Your task to perform on an android device: Show me the alarms in the clock app Image 0: 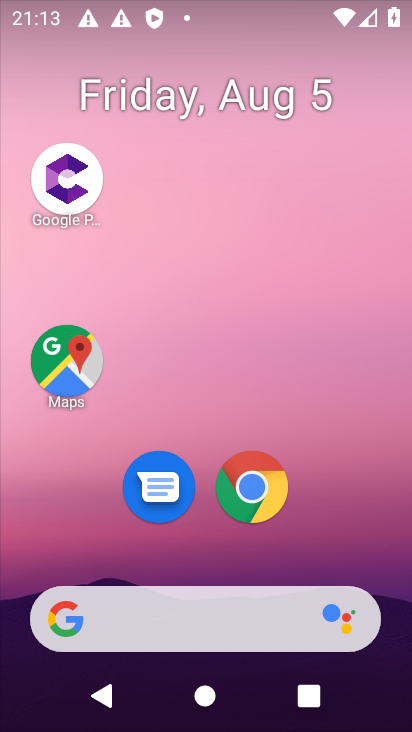
Step 0: click (279, 728)
Your task to perform on an android device: Show me the alarms in the clock app Image 1: 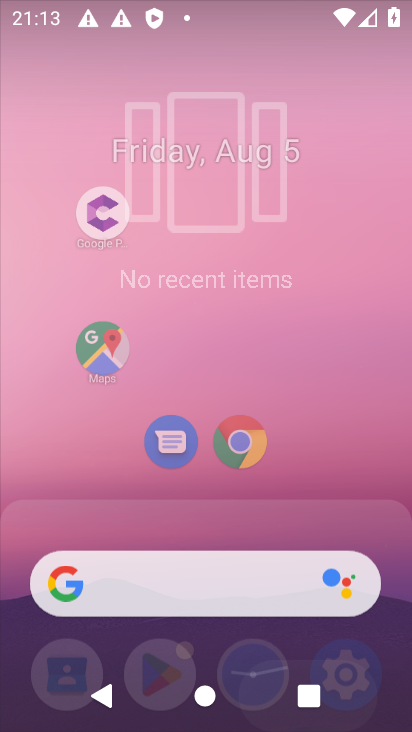
Step 1: drag from (233, 554) to (355, 4)
Your task to perform on an android device: Show me the alarms in the clock app Image 2: 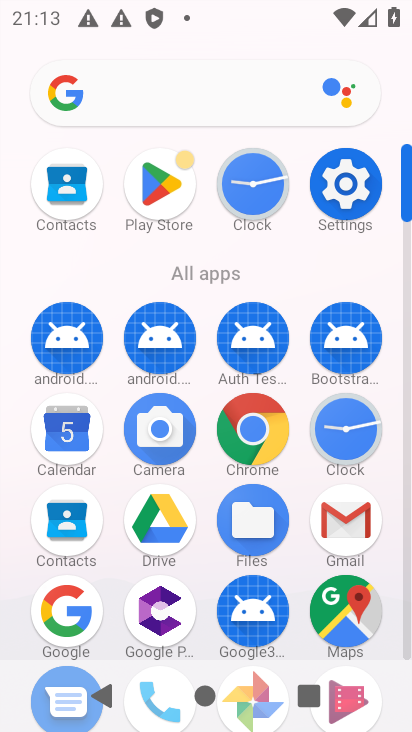
Step 2: click (263, 213)
Your task to perform on an android device: Show me the alarms in the clock app Image 3: 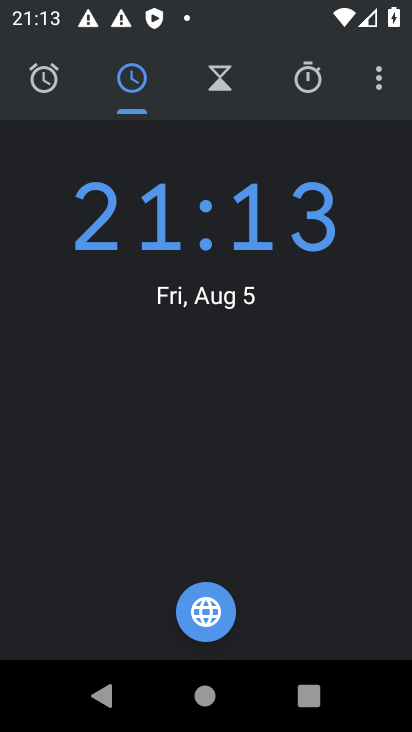
Step 3: click (48, 80)
Your task to perform on an android device: Show me the alarms in the clock app Image 4: 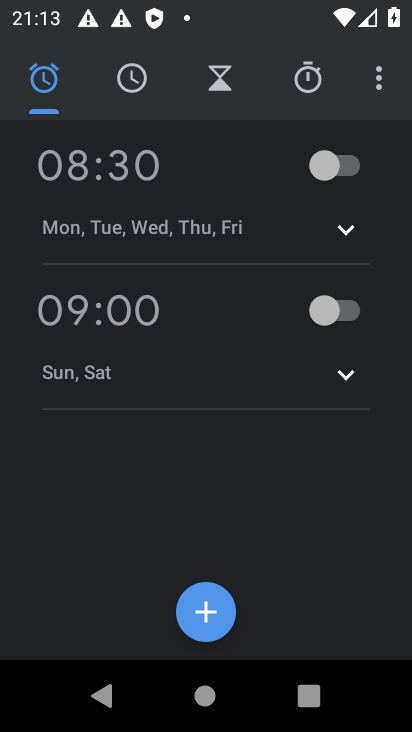
Step 4: task complete